Your task to perform on an android device: search for starred emails in the gmail app Image 0: 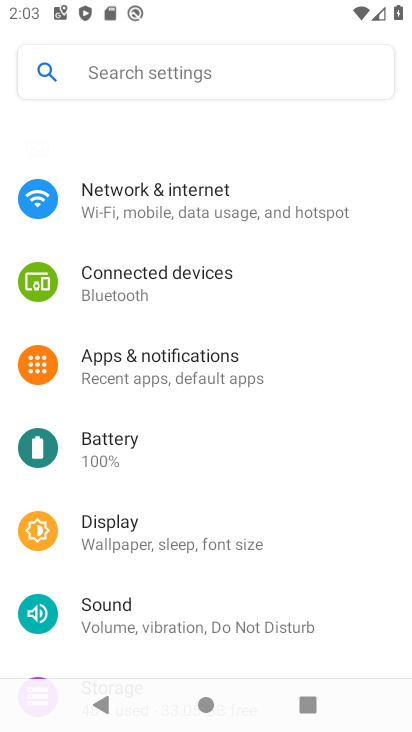
Step 0: press home button
Your task to perform on an android device: search for starred emails in the gmail app Image 1: 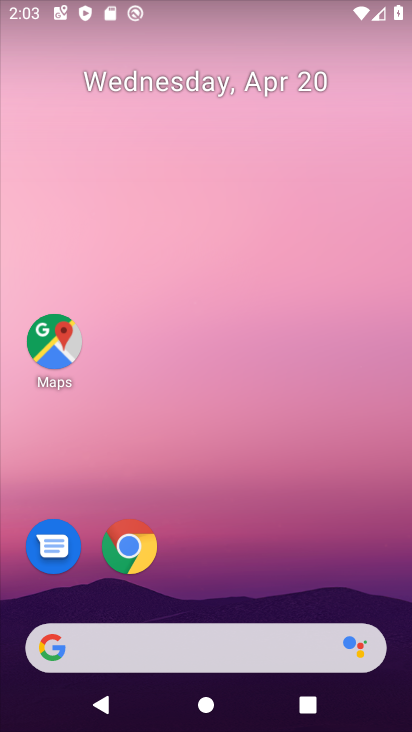
Step 1: drag from (246, 633) to (107, 55)
Your task to perform on an android device: search for starred emails in the gmail app Image 2: 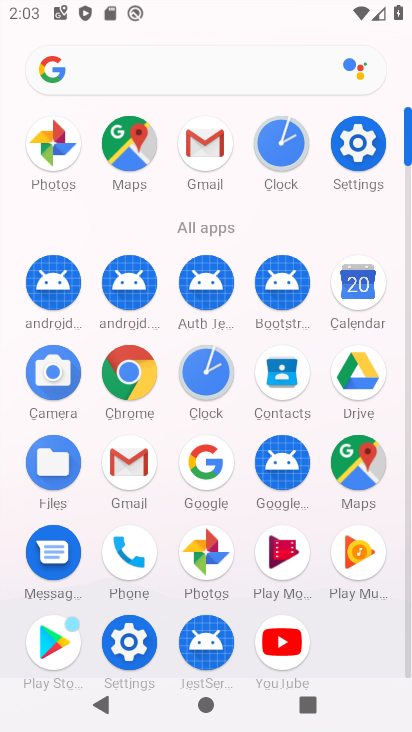
Step 2: click (127, 471)
Your task to perform on an android device: search for starred emails in the gmail app Image 3: 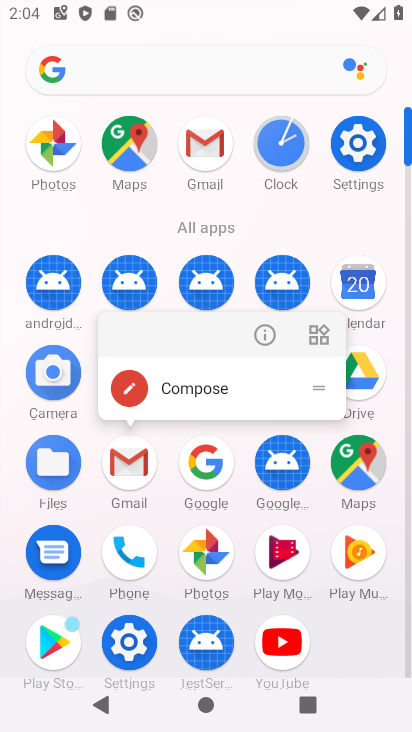
Step 3: click (130, 449)
Your task to perform on an android device: search for starred emails in the gmail app Image 4: 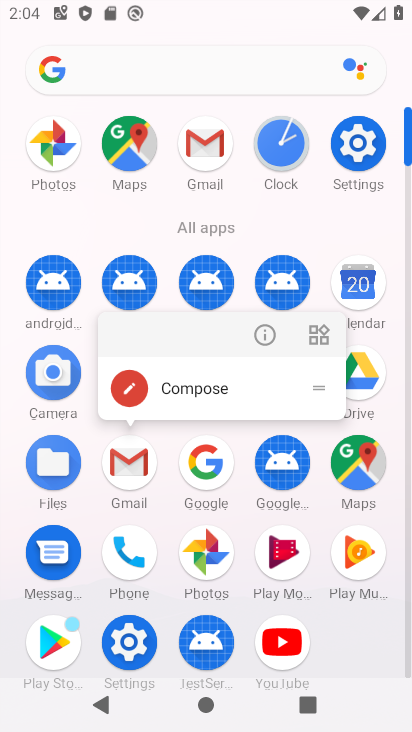
Step 4: click (111, 472)
Your task to perform on an android device: search for starred emails in the gmail app Image 5: 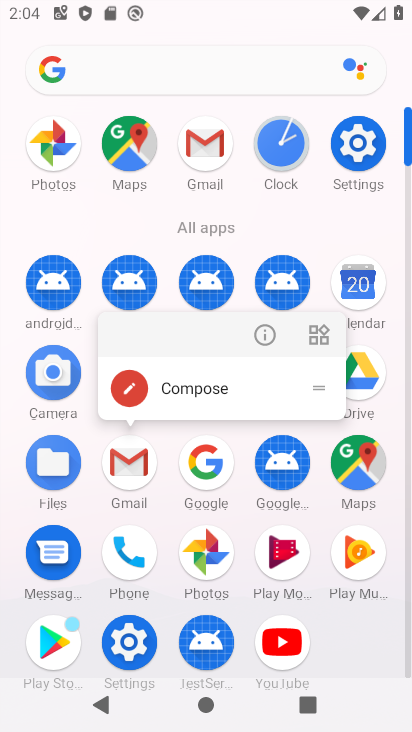
Step 5: click (112, 472)
Your task to perform on an android device: search for starred emails in the gmail app Image 6: 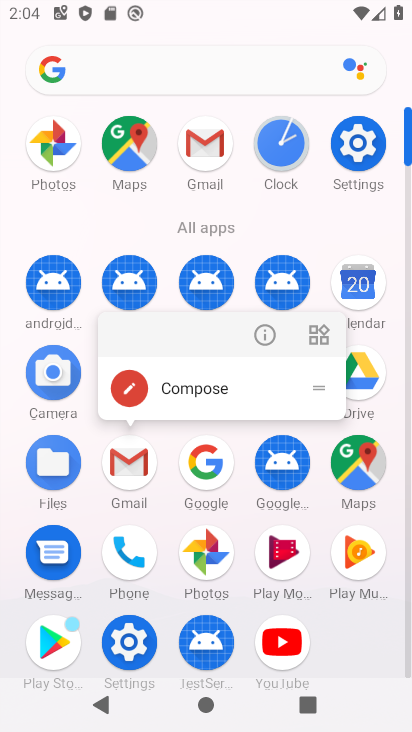
Step 6: click (112, 472)
Your task to perform on an android device: search for starred emails in the gmail app Image 7: 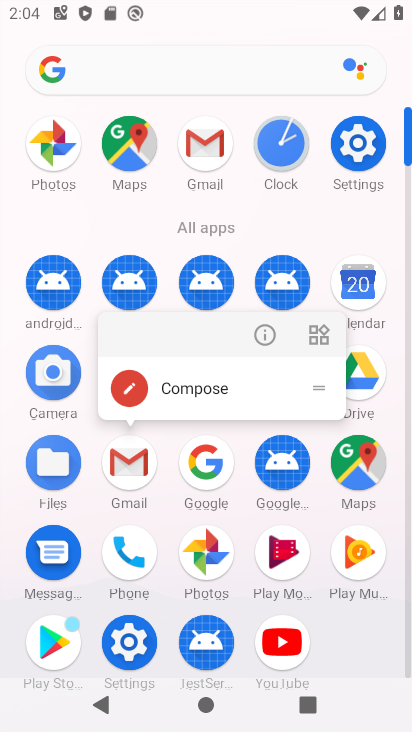
Step 7: click (125, 473)
Your task to perform on an android device: search for starred emails in the gmail app Image 8: 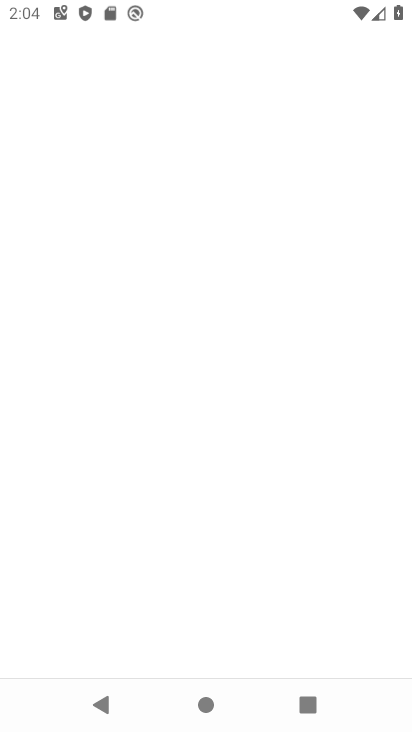
Step 8: drag from (143, 444) to (220, 373)
Your task to perform on an android device: search for starred emails in the gmail app Image 9: 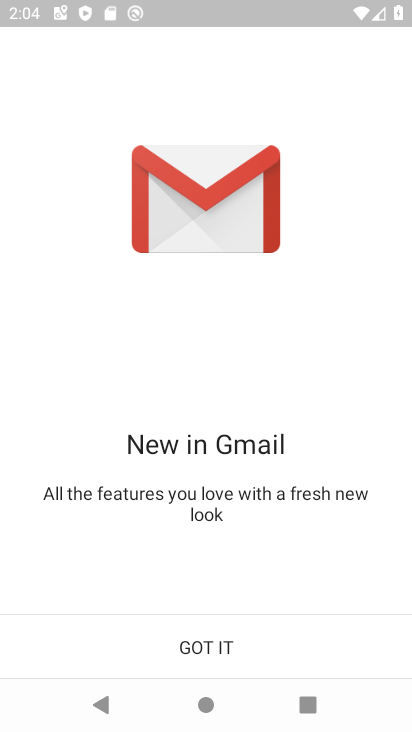
Step 9: click (218, 651)
Your task to perform on an android device: search for starred emails in the gmail app Image 10: 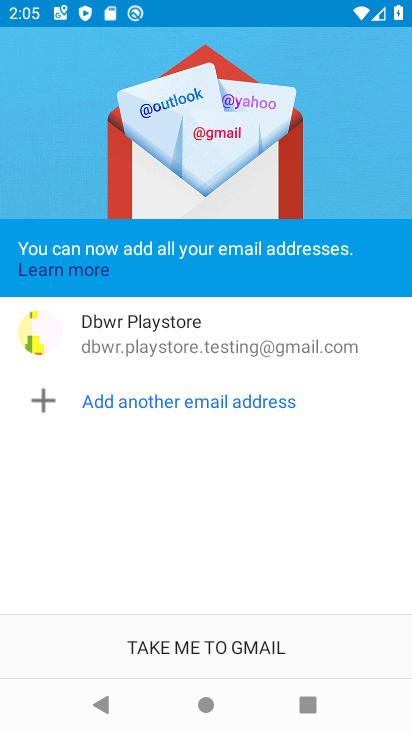
Step 10: click (229, 634)
Your task to perform on an android device: search for starred emails in the gmail app Image 11: 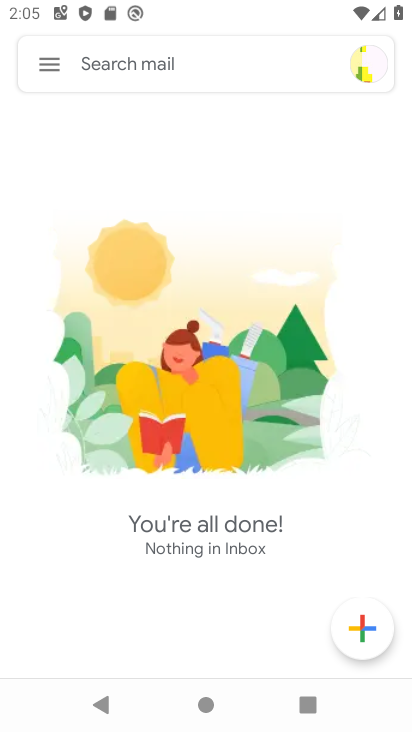
Step 11: click (49, 68)
Your task to perform on an android device: search for starred emails in the gmail app Image 12: 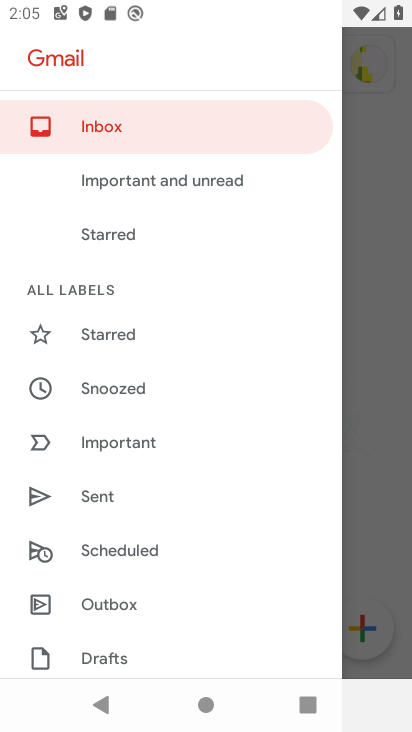
Step 12: click (113, 324)
Your task to perform on an android device: search for starred emails in the gmail app Image 13: 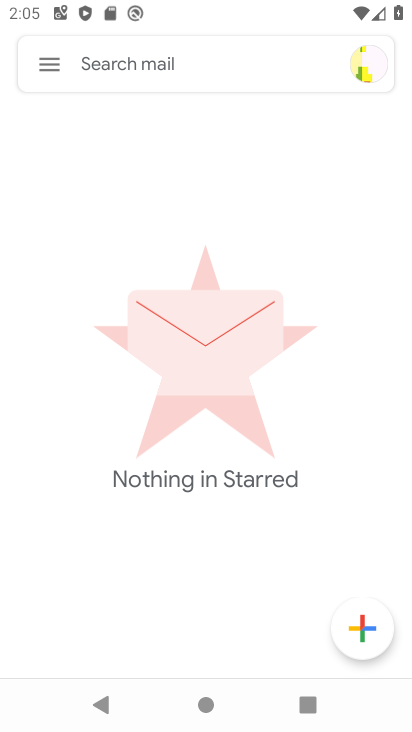
Step 13: task complete